Your task to perform on an android device: change alarm snooze length Image 0: 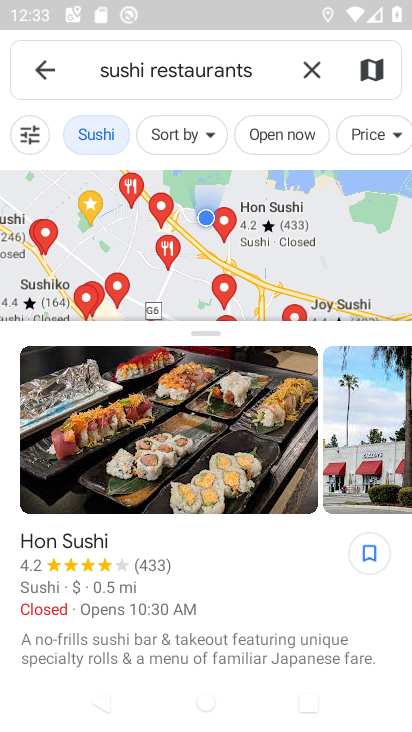
Step 0: press home button
Your task to perform on an android device: change alarm snooze length Image 1: 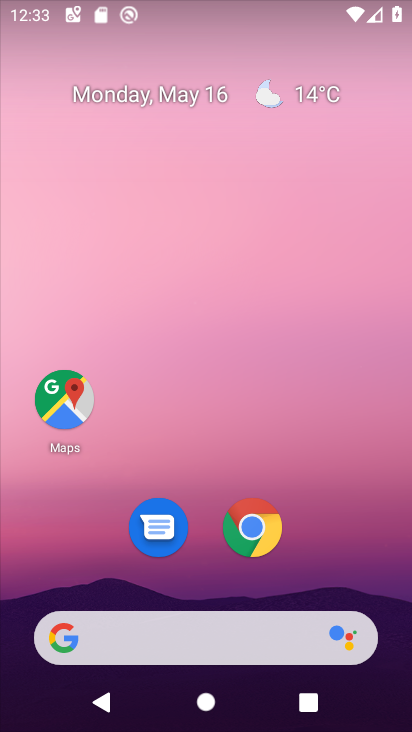
Step 1: drag from (208, 574) to (280, 6)
Your task to perform on an android device: change alarm snooze length Image 2: 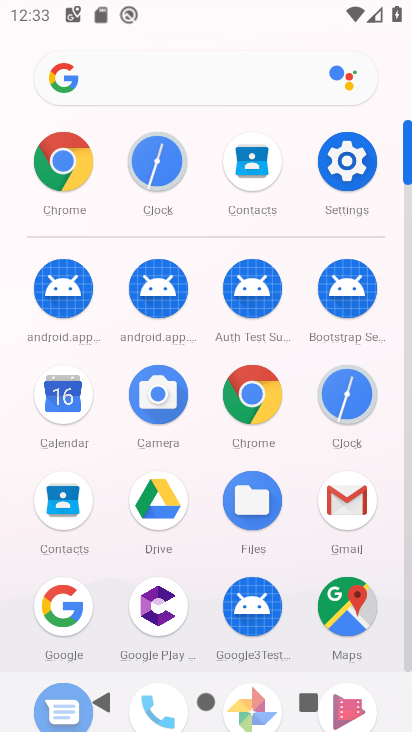
Step 2: click (348, 418)
Your task to perform on an android device: change alarm snooze length Image 3: 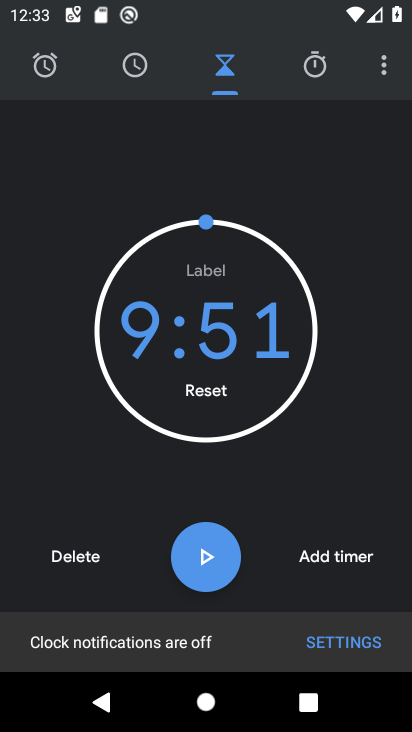
Step 3: click (380, 68)
Your task to perform on an android device: change alarm snooze length Image 4: 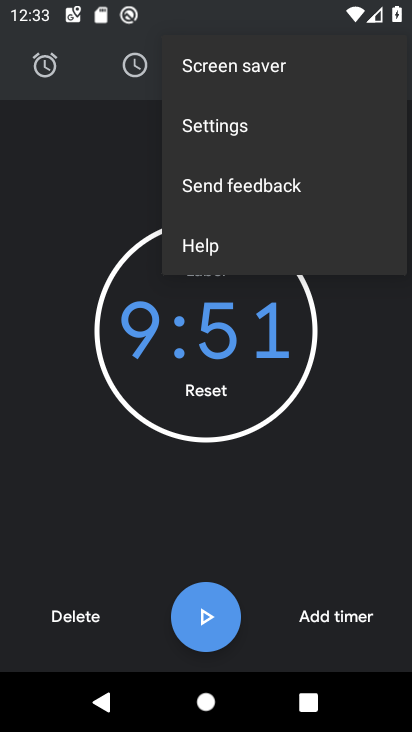
Step 4: click (211, 121)
Your task to perform on an android device: change alarm snooze length Image 5: 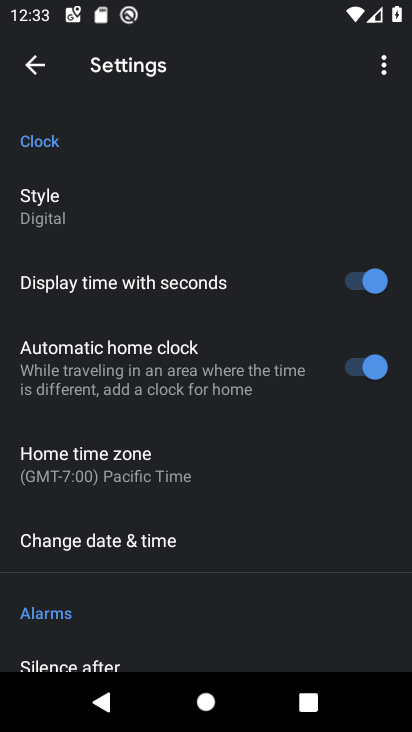
Step 5: drag from (164, 445) to (204, 210)
Your task to perform on an android device: change alarm snooze length Image 6: 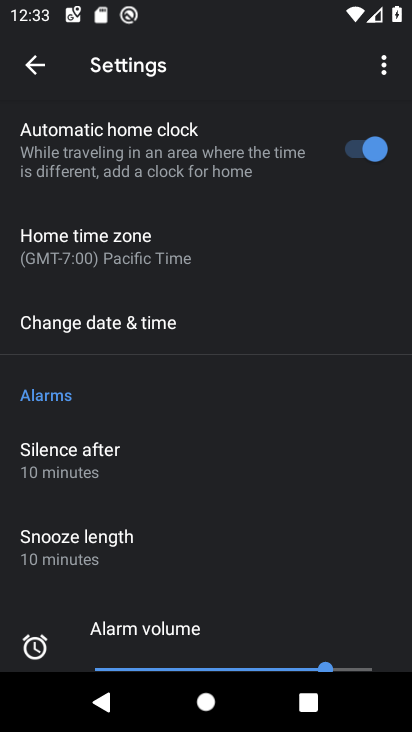
Step 6: click (94, 540)
Your task to perform on an android device: change alarm snooze length Image 7: 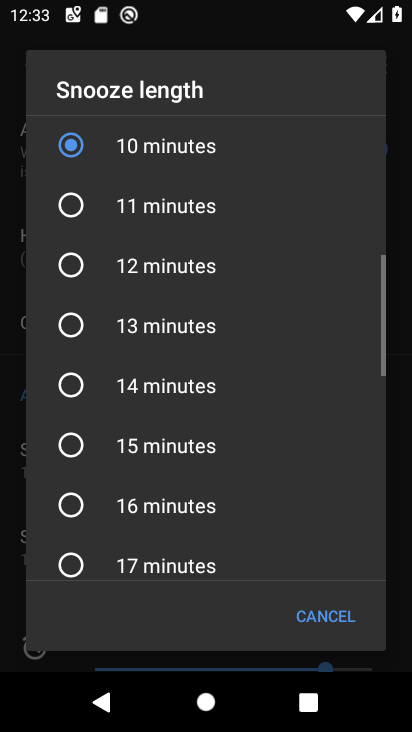
Step 7: click (121, 507)
Your task to perform on an android device: change alarm snooze length Image 8: 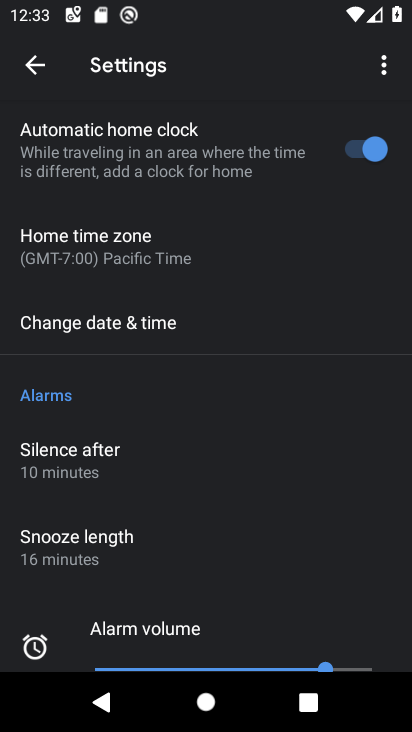
Step 8: task complete